Your task to perform on an android device: turn off location history Image 0: 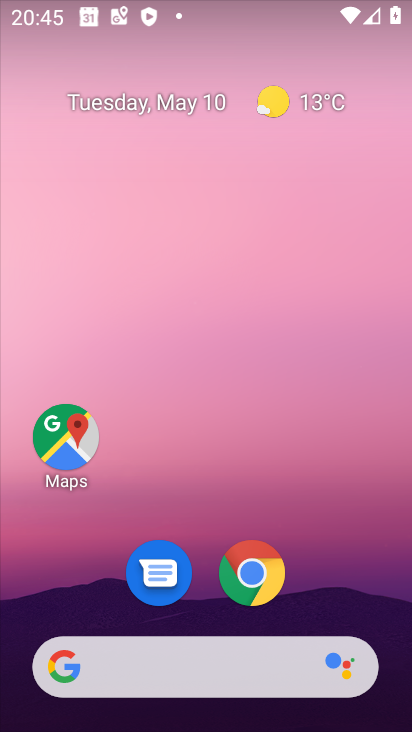
Step 0: click (60, 436)
Your task to perform on an android device: turn off location history Image 1: 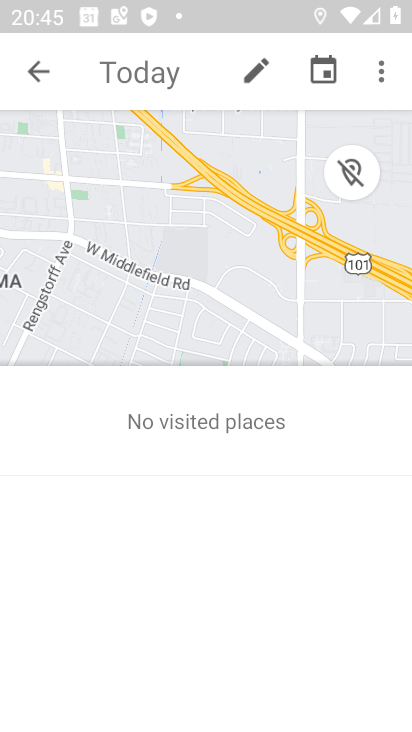
Step 1: click (382, 70)
Your task to perform on an android device: turn off location history Image 2: 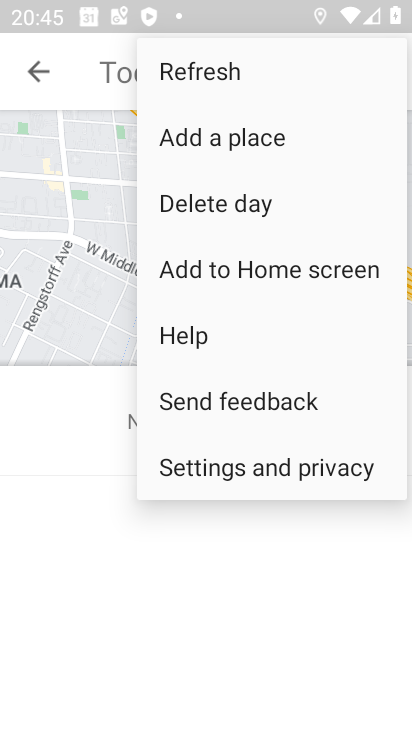
Step 2: click (197, 467)
Your task to perform on an android device: turn off location history Image 3: 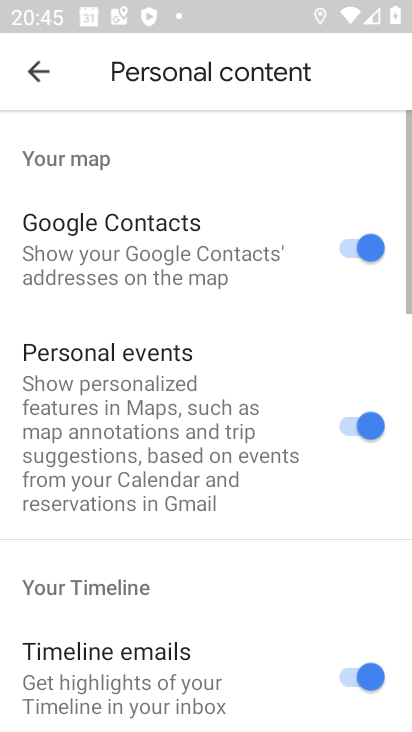
Step 3: drag from (131, 607) to (129, 105)
Your task to perform on an android device: turn off location history Image 4: 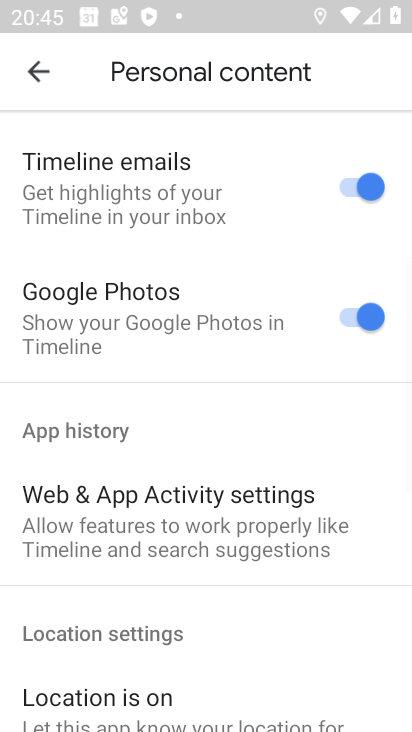
Step 4: drag from (137, 565) to (149, 87)
Your task to perform on an android device: turn off location history Image 5: 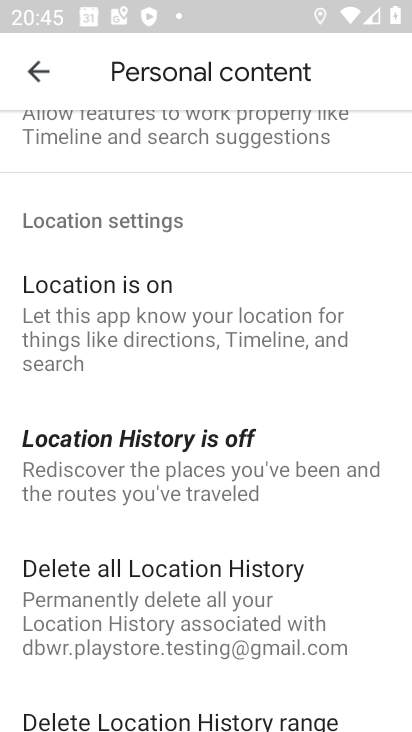
Step 5: click (110, 492)
Your task to perform on an android device: turn off location history Image 6: 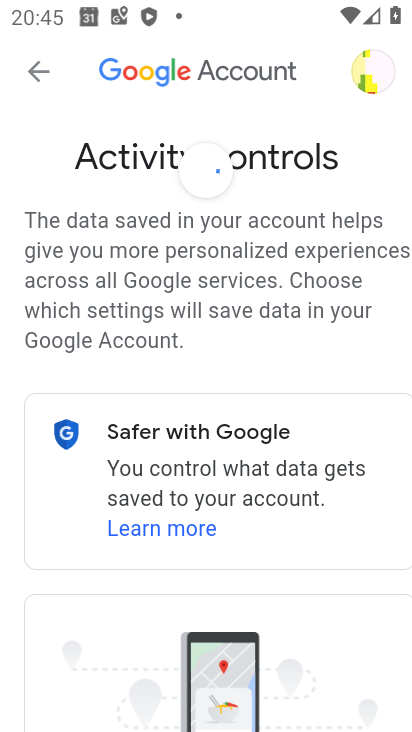
Step 6: drag from (278, 679) to (259, 218)
Your task to perform on an android device: turn off location history Image 7: 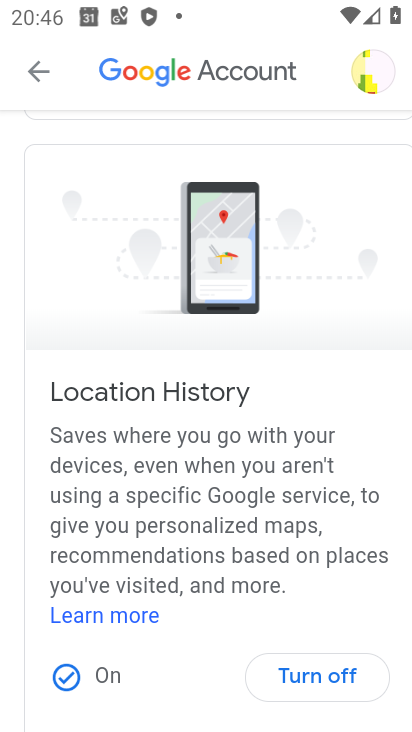
Step 7: drag from (283, 649) to (255, 272)
Your task to perform on an android device: turn off location history Image 8: 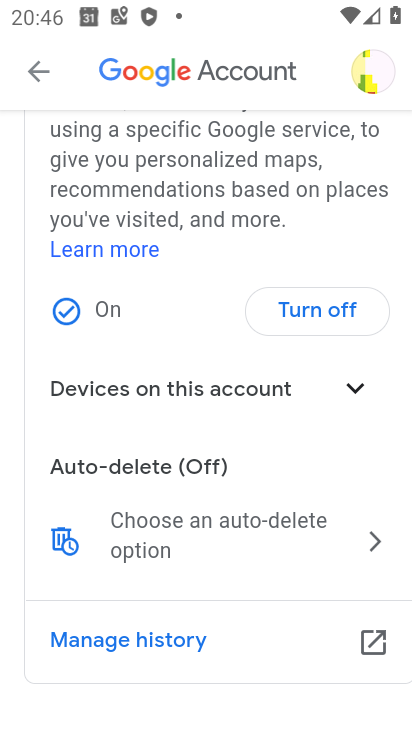
Step 8: click (309, 317)
Your task to perform on an android device: turn off location history Image 9: 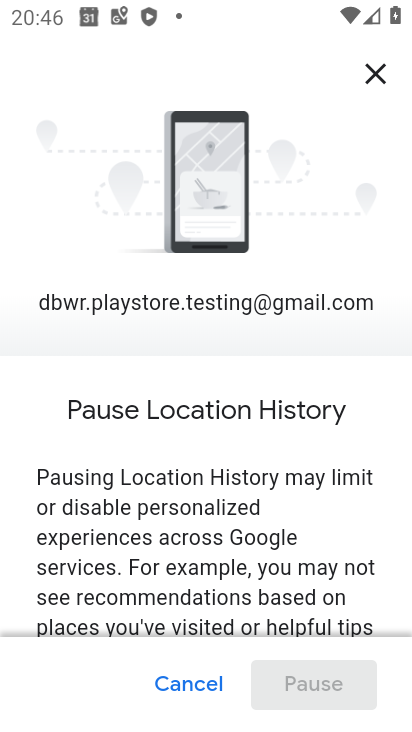
Step 9: drag from (237, 585) to (209, 86)
Your task to perform on an android device: turn off location history Image 10: 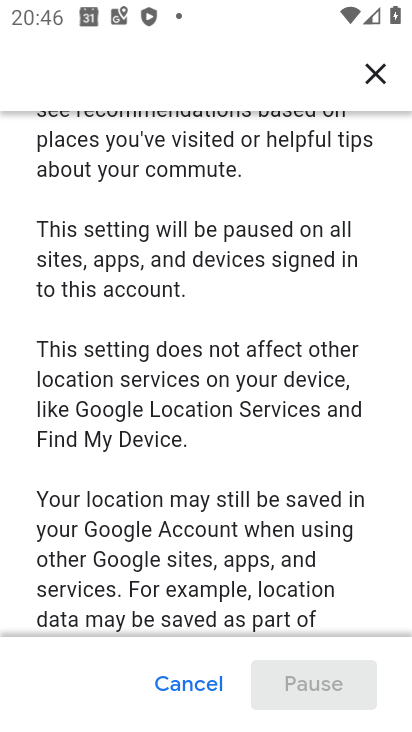
Step 10: drag from (197, 563) to (151, 76)
Your task to perform on an android device: turn off location history Image 11: 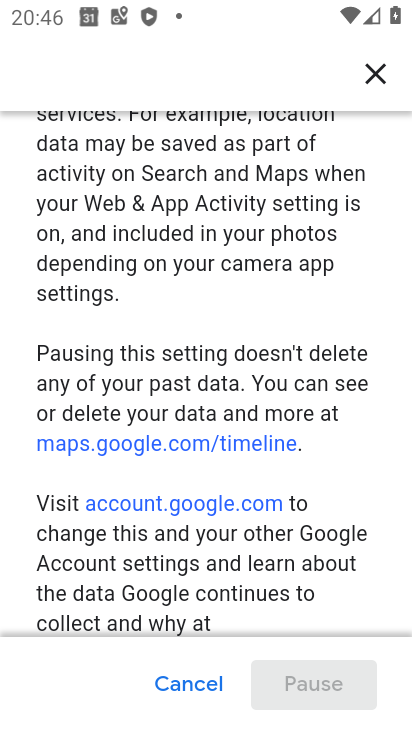
Step 11: drag from (176, 555) to (153, 64)
Your task to perform on an android device: turn off location history Image 12: 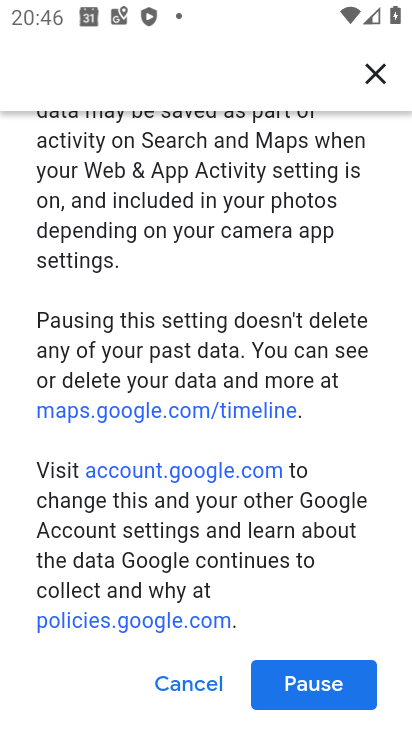
Step 12: click (301, 690)
Your task to perform on an android device: turn off location history Image 13: 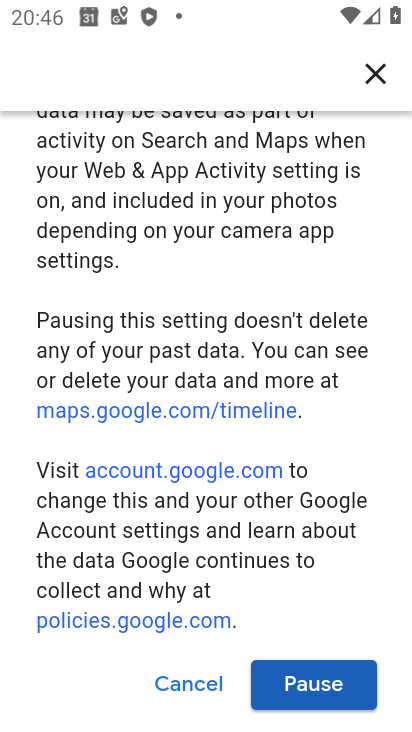
Step 13: click (262, 673)
Your task to perform on an android device: turn off location history Image 14: 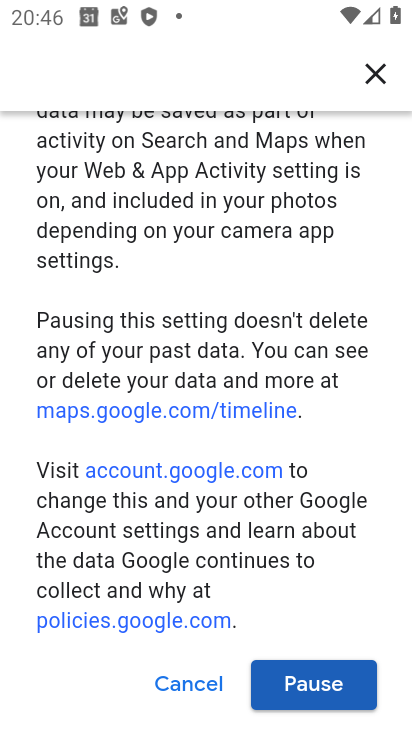
Step 14: click (289, 681)
Your task to perform on an android device: turn off location history Image 15: 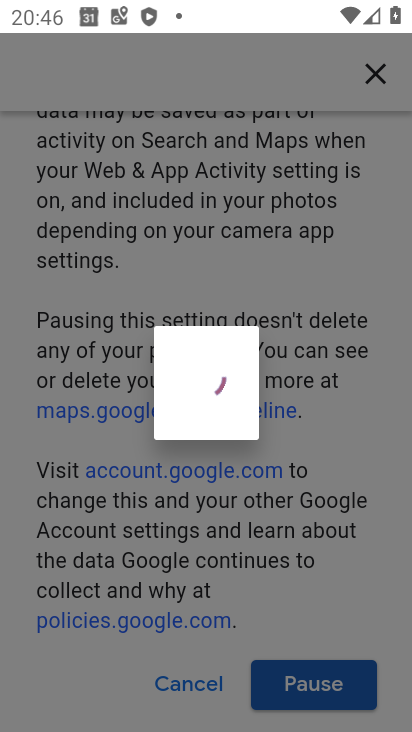
Step 15: drag from (197, 606) to (179, 235)
Your task to perform on an android device: turn off location history Image 16: 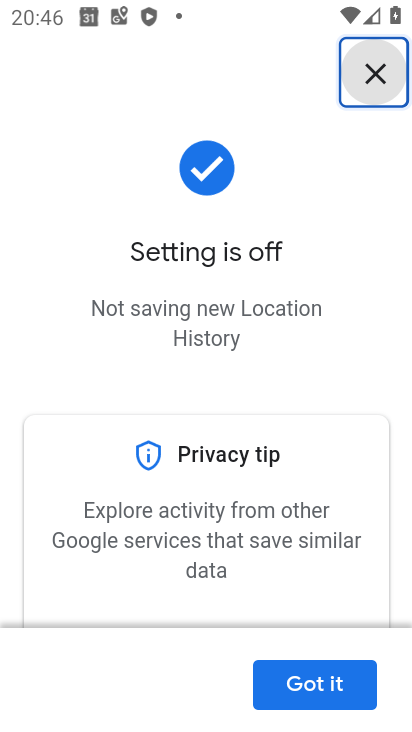
Step 16: click (349, 679)
Your task to perform on an android device: turn off location history Image 17: 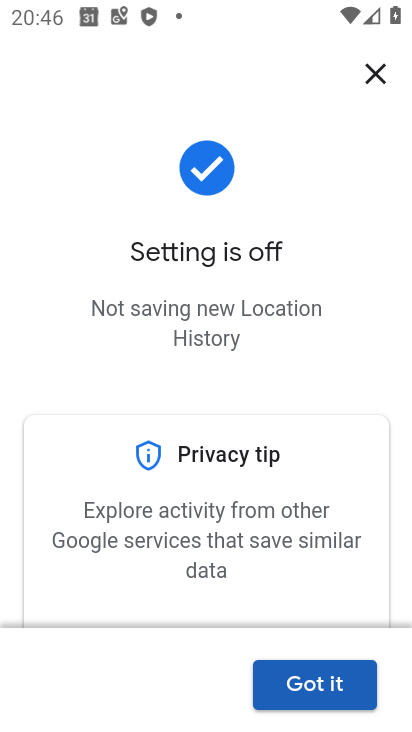
Step 17: click (296, 684)
Your task to perform on an android device: turn off location history Image 18: 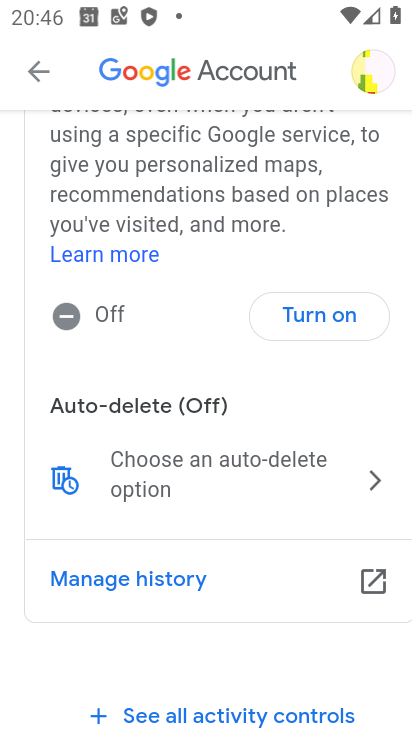
Step 18: task complete